Your task to perform on an android device: open the mobile data screen to see how much data has been used Image 0: 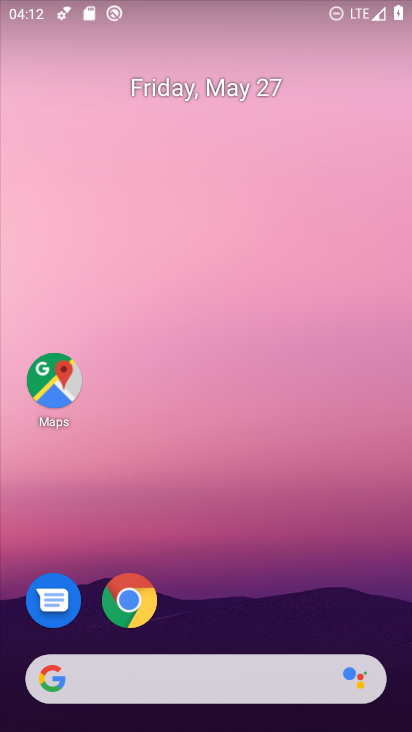
Step 0: drag from (195, 725) to (195, 153)
Your task to perform on an android device: open the mobile data screen to see how much data has been used Image 1: 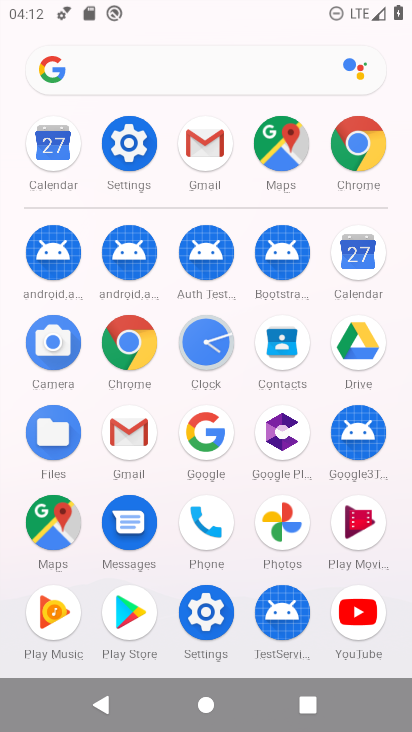
Step 1: click (128, 147)
Your task to perform on an android device: open the mobile data screen to see how much data has been used Image 2: 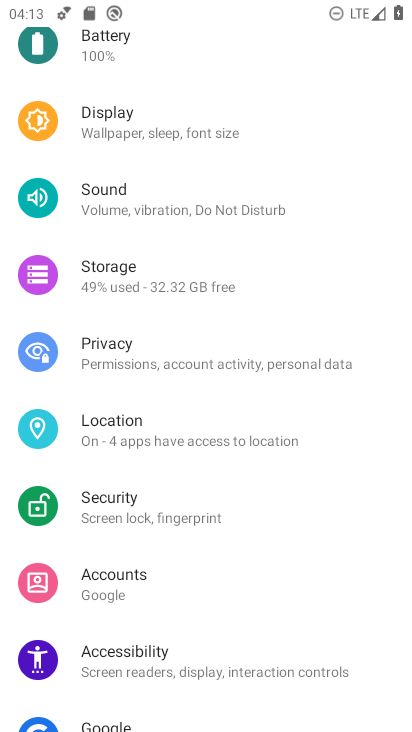
Step 2: drag from (233, 96) to (231, 420)
Your task to perform on an android device: open the mobile data screen to see how much data has been used Image 3: 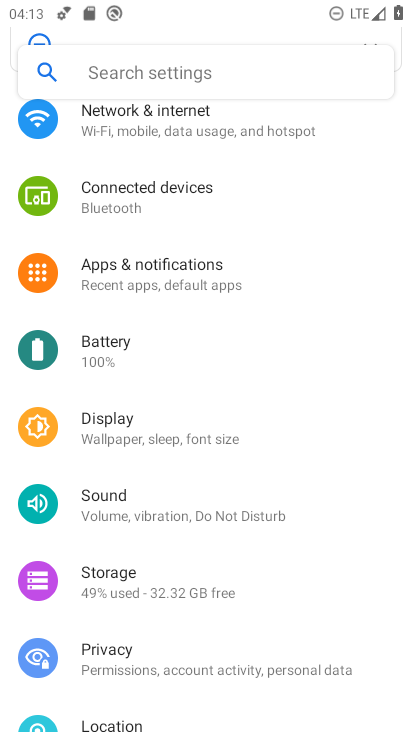
Step 3: drag from (199, 121) to (189, 399)
Your task to perform on an android device: open the mobile data screen to see how much data has been used Image 4: 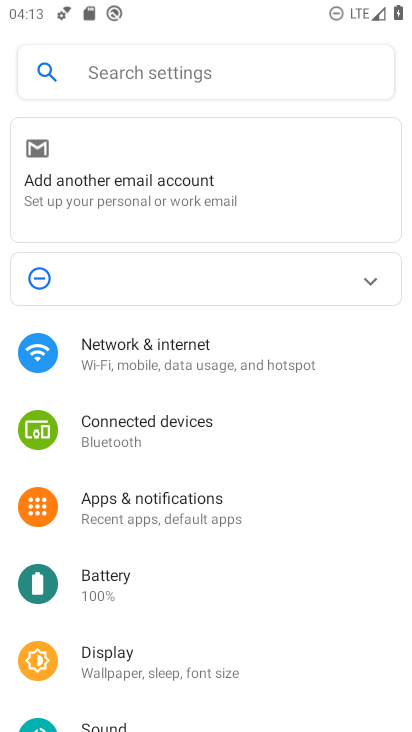
Step 4: click (166, 354)
Your task to perform on an android device: open the mobile data screen to see how much data has been used Image 5: 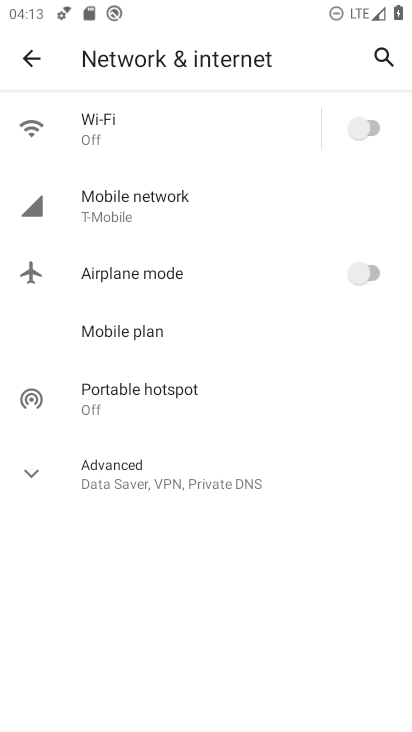
Step 5: click (120, 197)
Your task to perform on an android device: open the mobile data screen to see how much data has been used Image 6: 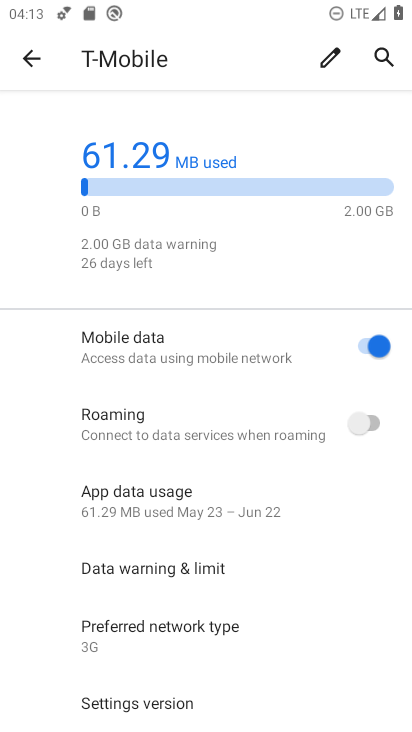
Step 6: click (122, 492)
Your task to perform on an android device: open the mobile data screen to see how much data has been used Image 7: 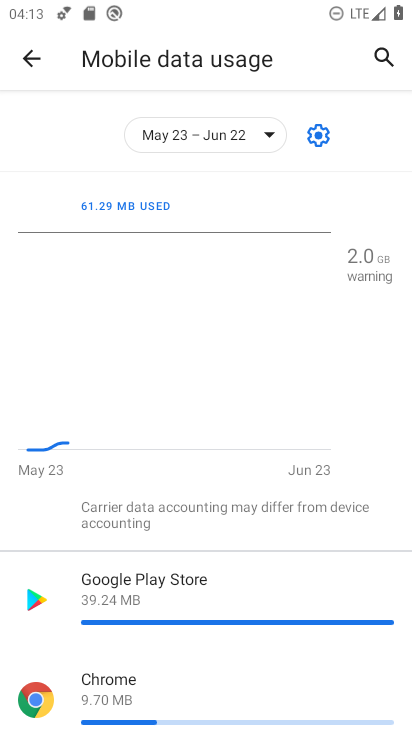
Step 7: task complete